Your task to perform on an android device: snooze an email in the gmail app Image 0: 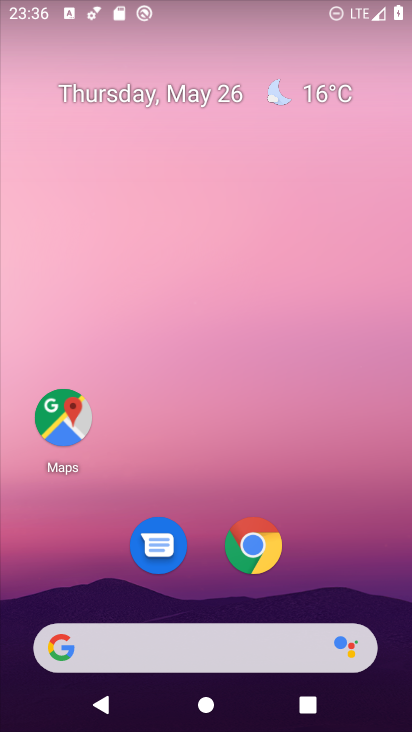
Step 0: press home button
Your task to perform on an android device: snooze an email in the gmail app Image 1: 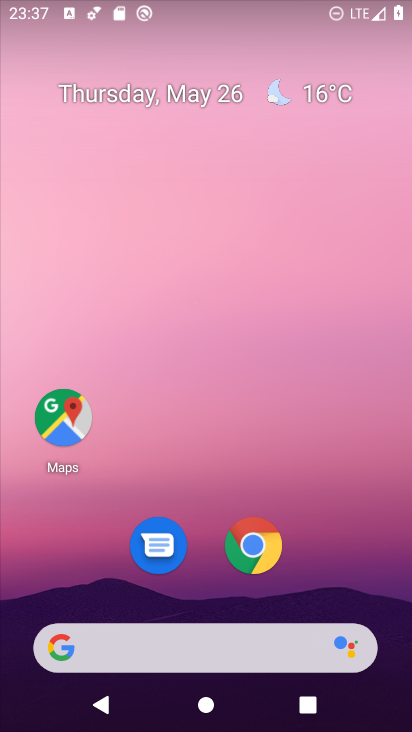
Step 1: drag from (271, 611) to (285, 198)
Your task to perform on an android device: snooze an email in the gmail app Image 2: 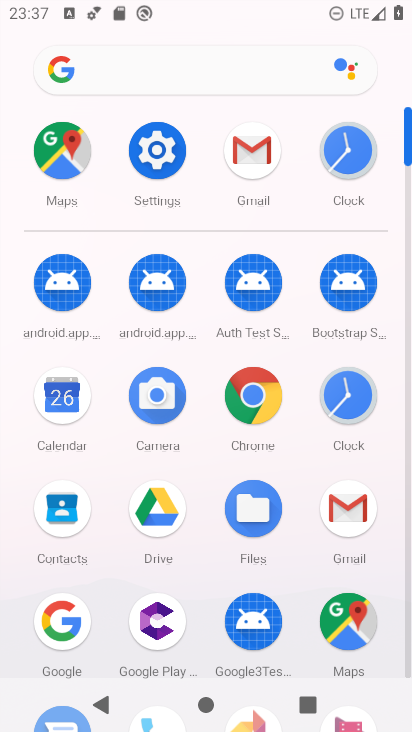
Step 2: click (250, 170)
Your task to perform on an android device: snooze an email in the gmail app Image 3: 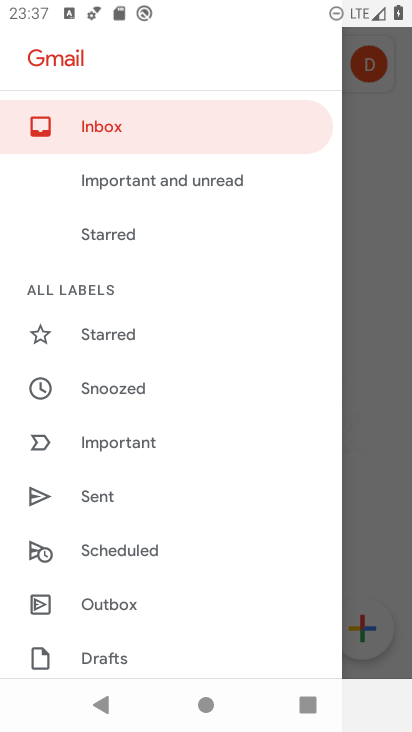
Step 3: drag from (234, 583) to (202, 168)
Your task to perform on an android device: snooze an email in the gmail app Image 4: 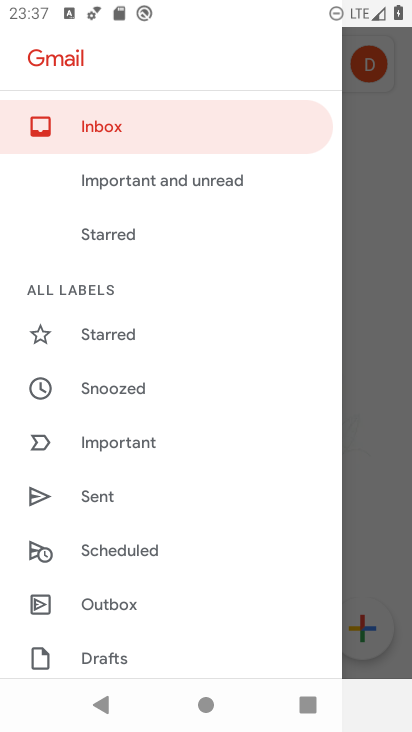
Step 4: drag from (231, 537) to (278, 57)
Your task to perform on an android device: snooze an email in the gmail app Image 5: 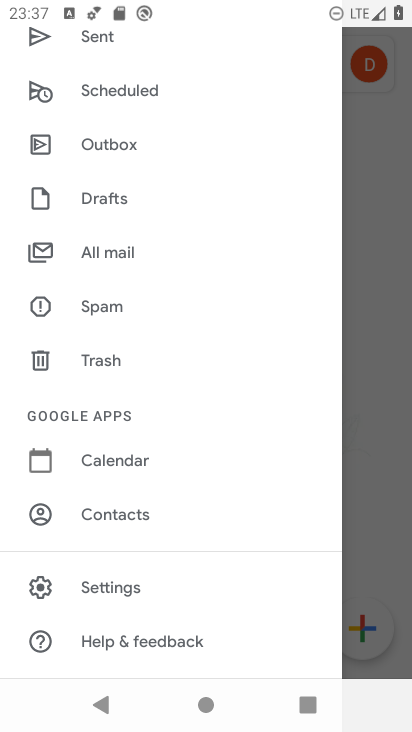
Step 5: click (110, 258)
Your task to perform on an android device: snooze an email in the gmail app Image 6: 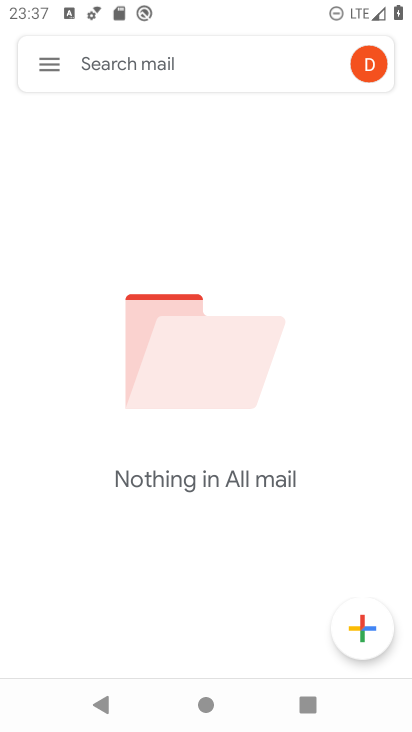
Step 6: task complete